Your task to perform on an android device: Open Maps and search for coffee Image 0: 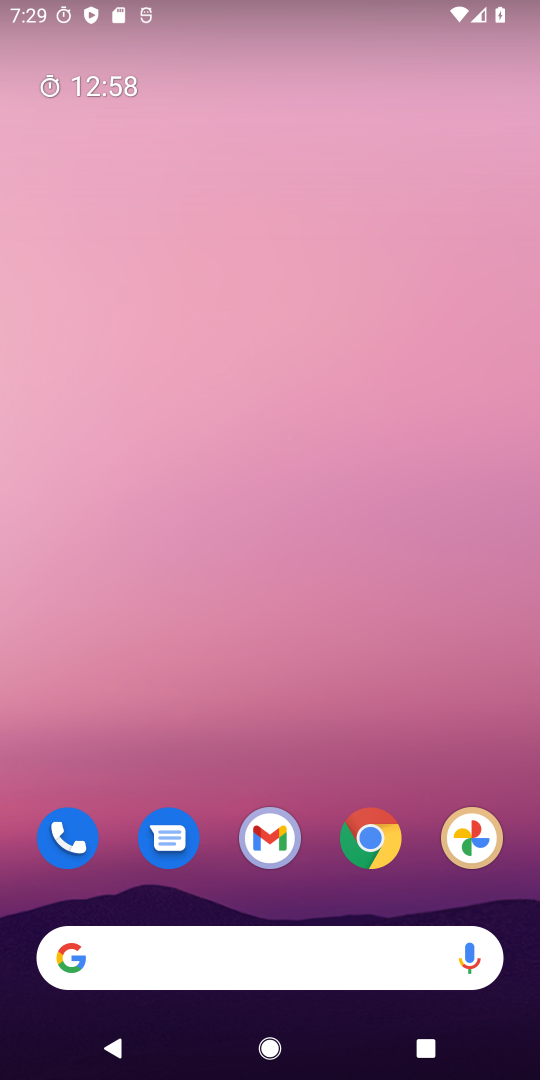
Step 0: drag from (327, 680) to (461, 10)
Your task to perform on an android device: Open Maps and search for coffee Image 1: 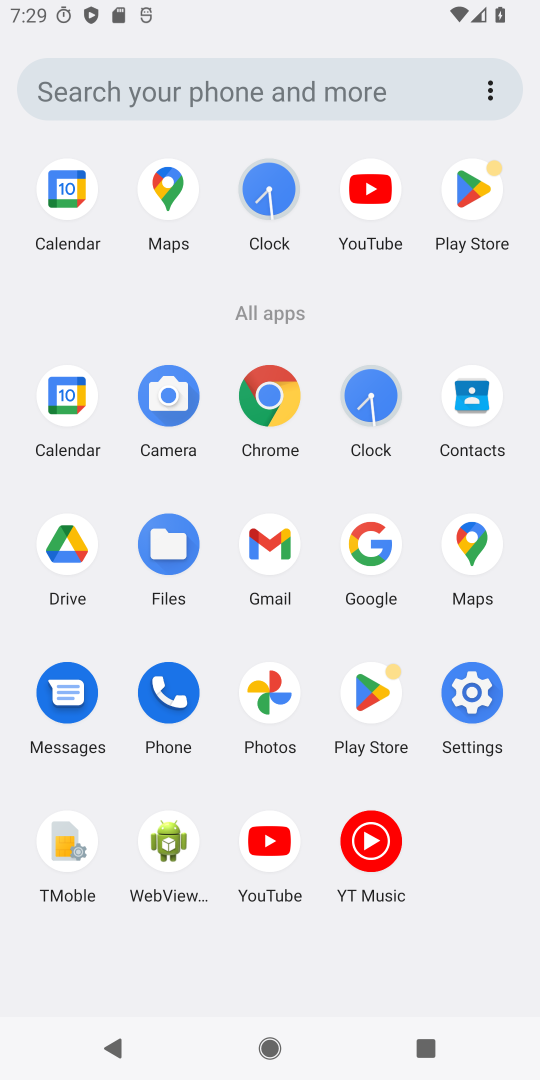
Step 1: click (476, 535)
Your task to perform on an android device: Open Maps and search for coffee Image 2: 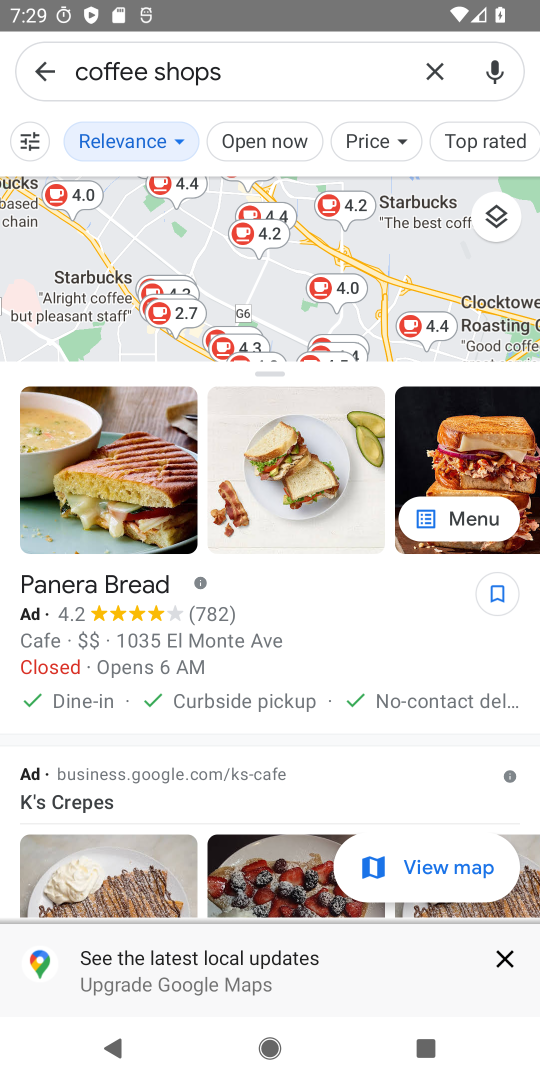
Step 2: task complete